Your task to perform on an android device: Open eBay Image 0: 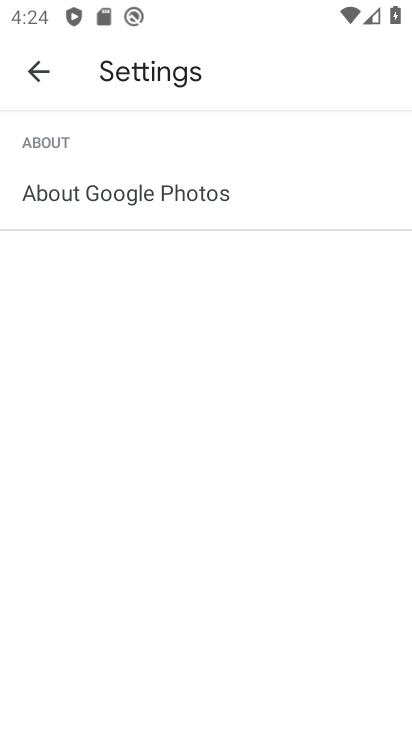
Step 0: click (26, 61)
Your task to perform on an android device: Open eBay Image 1: 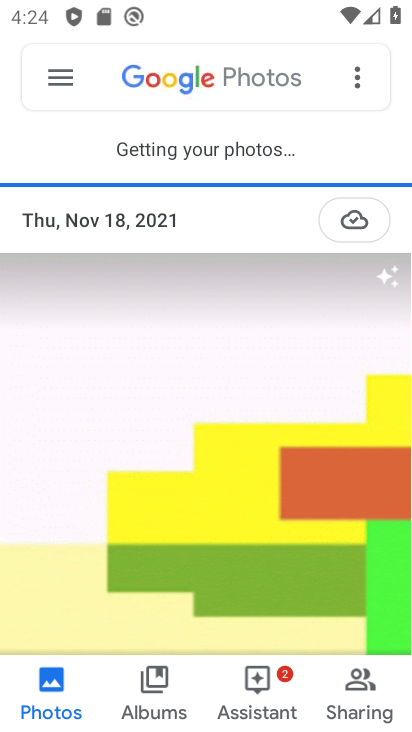
Step 1: click (37, 64)
Your task to perform on an android device: Open eBay Image 2: 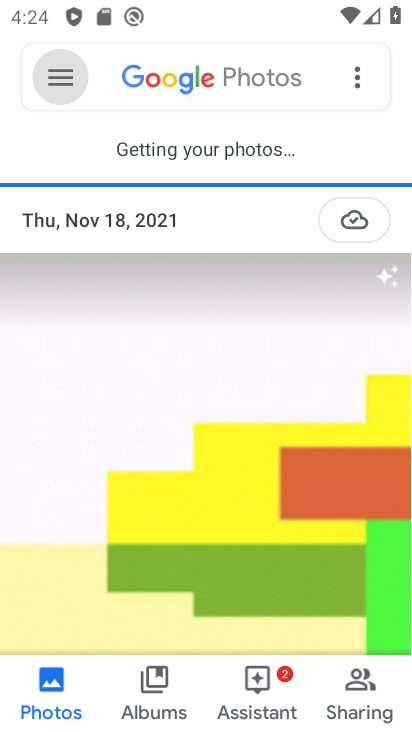
Step 2: click (56, 134)
Your task to perform on an android device: Open eBay Image 3: 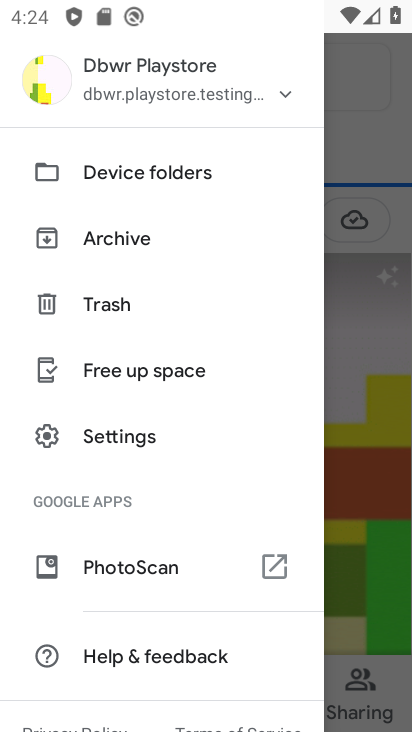
Step 3: click (38, 73)
Your task to perform on an android device: Open eBay Image 4: 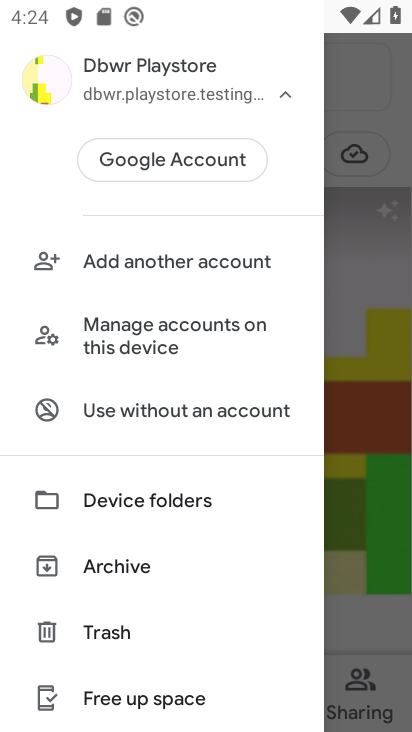
Step 4: drag from (182, 627) to (103, 84)
Your task to perform on an android device: Open eBay Image 5: 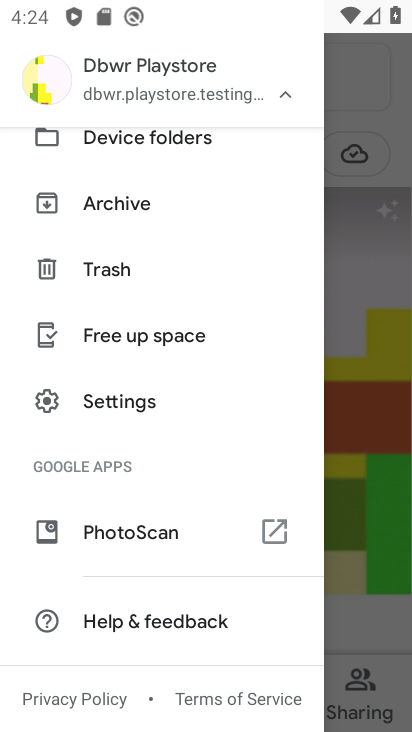
Step 5: drag from (167, 458) to (158, 6)
Your task to perform on an android device: Open eBay Image 6: 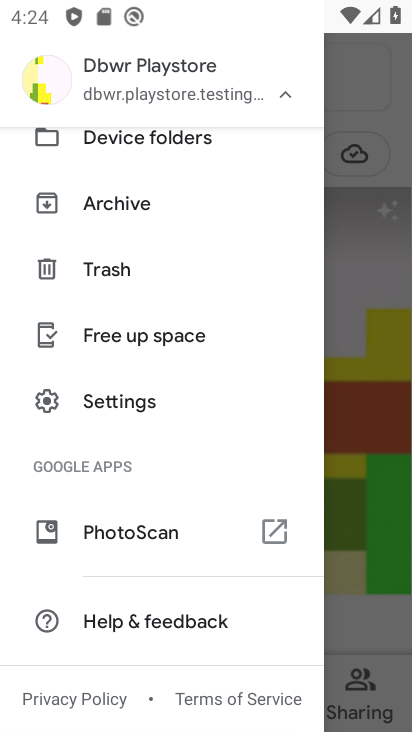
Step 6: drag from (152, 581) to (152, 45)
Your task to perform on an android device: Open eBay Image 7: 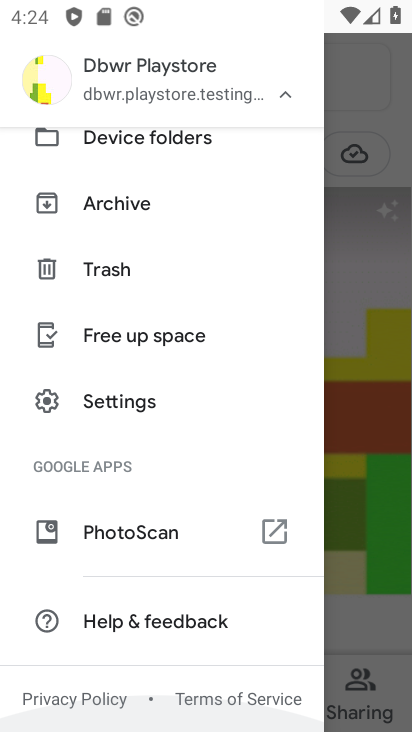
Step 7: drag from (219, 580) to (219, 179)
Your task to perform on an android device: Open eBay Image 8: 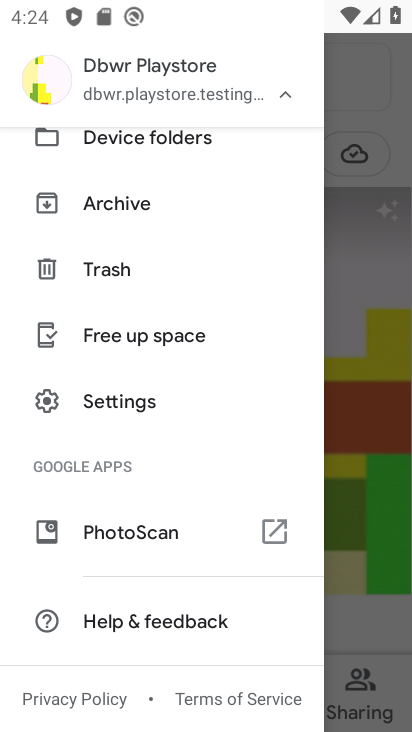
Step 8: press back button
Your task to perform on an android device: Open eBay Image 9: 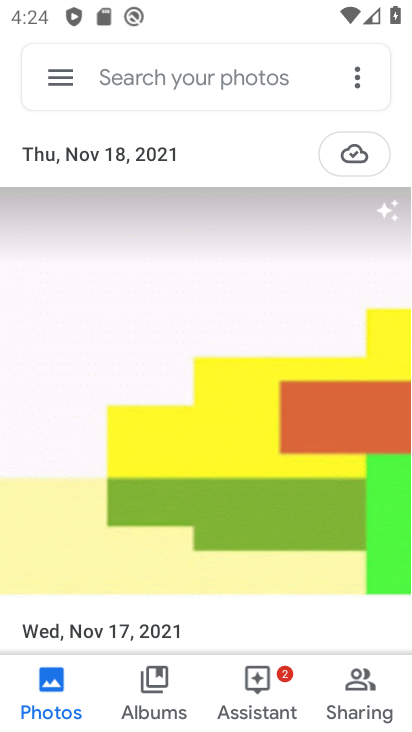
Step 9: press back button
Your task to perform on an android device: Open eBay Image 10: 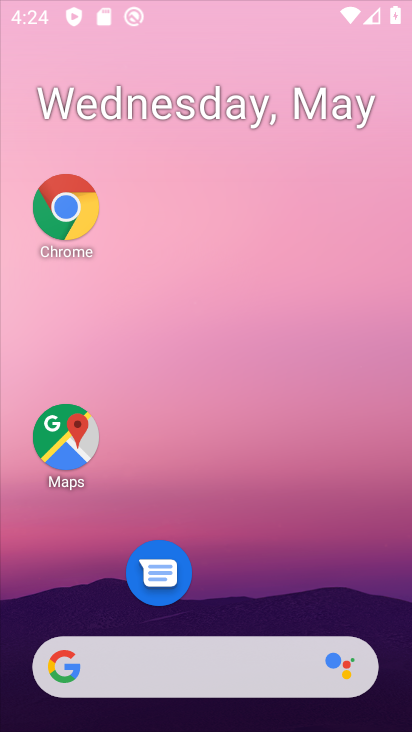
Step 10: press back button
Your task to perform on an android device: Open eBay Image 11: 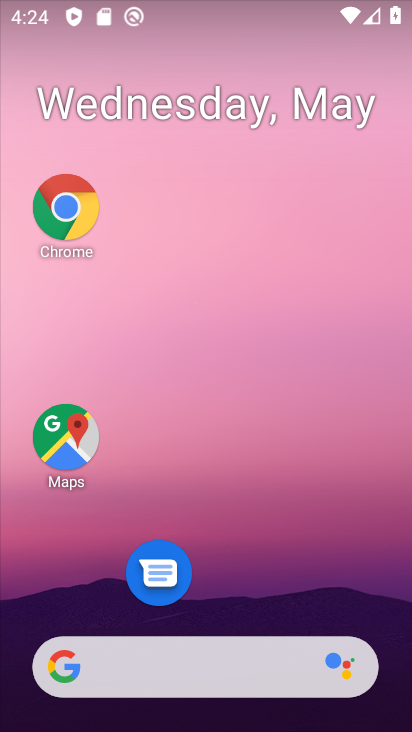
Step 11: drag from (273, 637) to (171, 1)
Your task to perform on an android device: Open eBay Image 12: 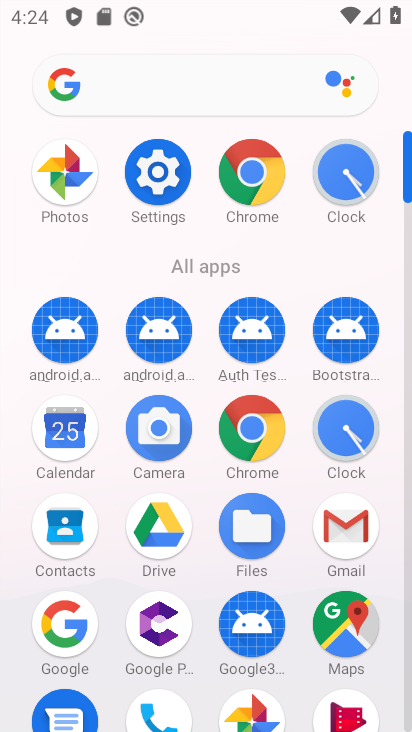
Step 12: drag from (292, 636) to (171, 70)
Your task to perform on an android device: Open eBay Image 13: 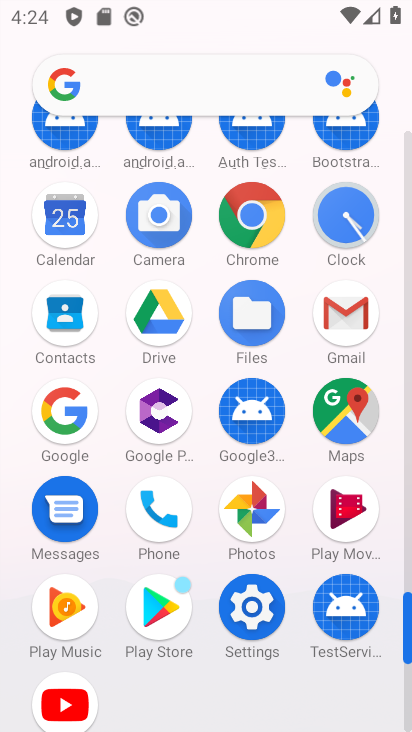
Step 13: click (257, 220)
Your task to perform on an android device: Open eBay Image 14: 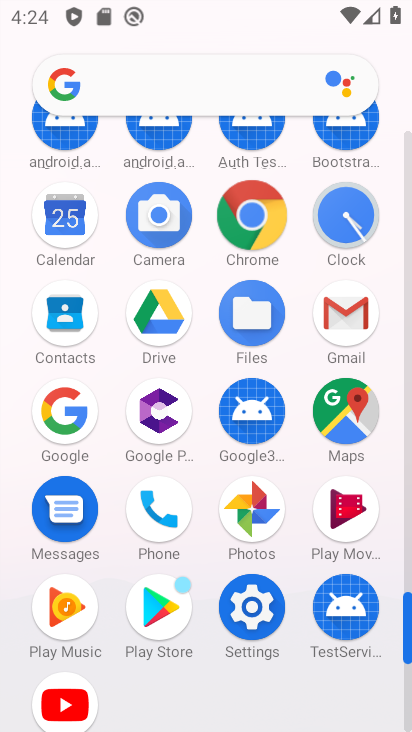
Step 14: click (258, 221)
Your task to perform on an android device: Open eBay Image 15: 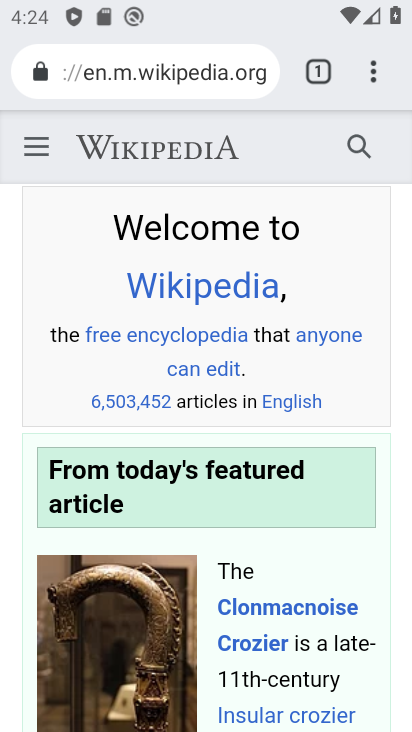
Step 15: drag from (374, 69) to (78, 147)
Your task to perform on an android device: Open eBay Image 16: 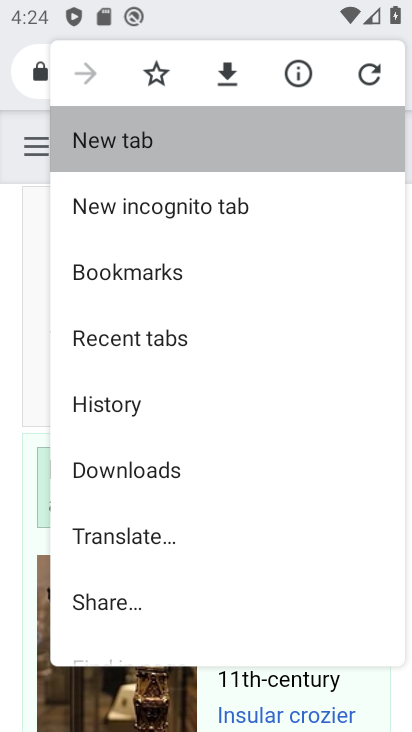
Step 16: click (78, 147)
Your task to perform on an android device: Open eBay Image 17: 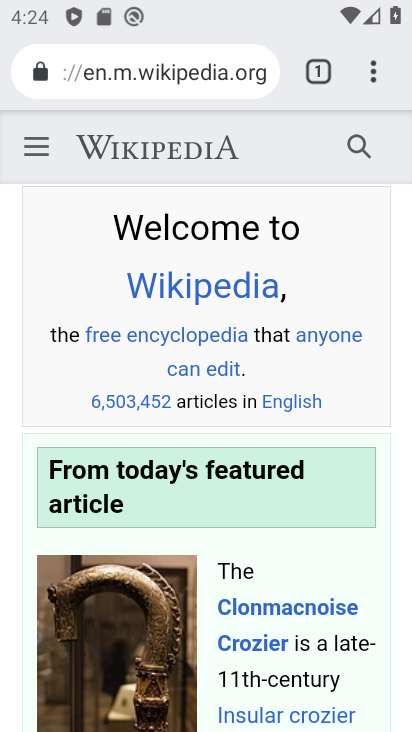
Step 17: click (78, 147)
Your task to perform on an android device: Open eBay Image 18: 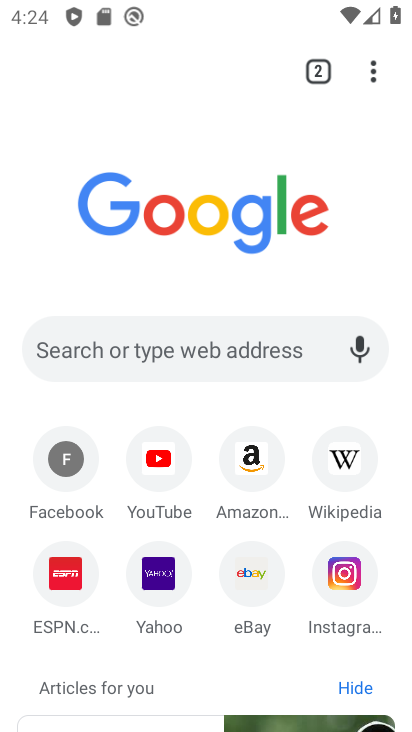
Step 18: click (248, 585)
Your task to perform on an android device: Open eBay Image 19: 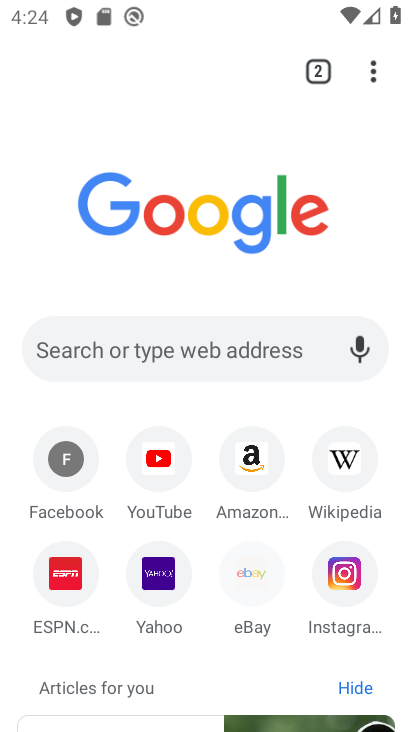
Step 19: click (248, 584)
Your task to perform on an android device: Open eBay Image 20: 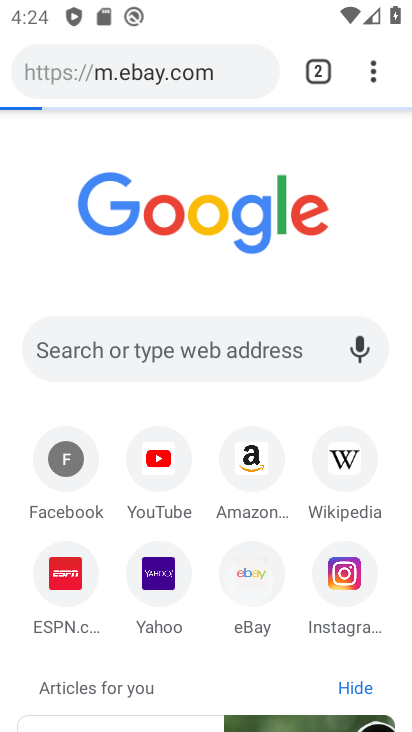
Step 20: click (248, 583)
Your task to perform on an android device: Open eBay Image 21: 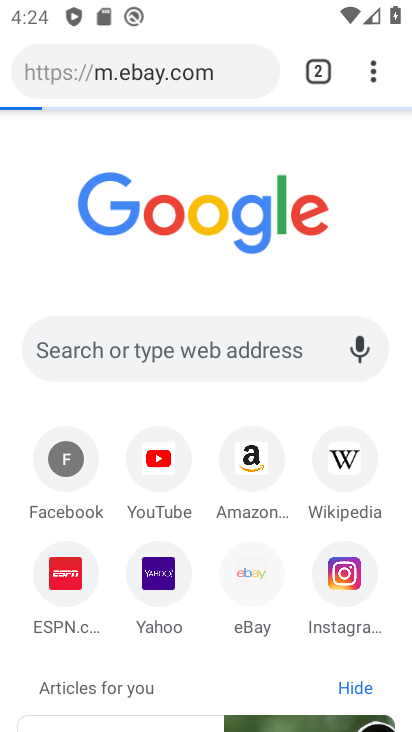
Step 21: click (248, 582)
Your task to perform on an android device: Open eBay Image 22: 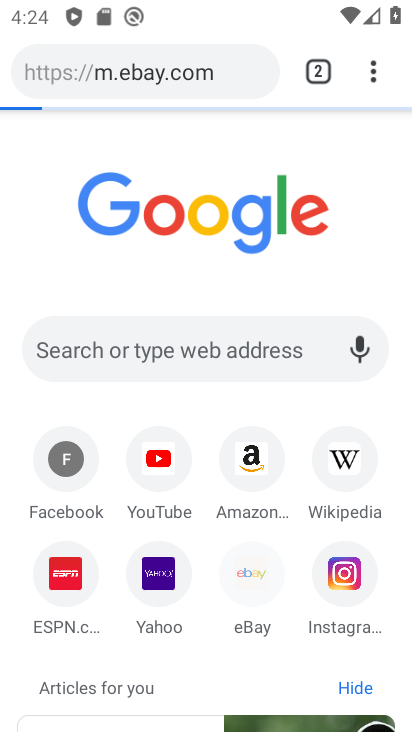
Step 22: click (221, 560)
Your task to perform on an android device: Open eBay Image 23: 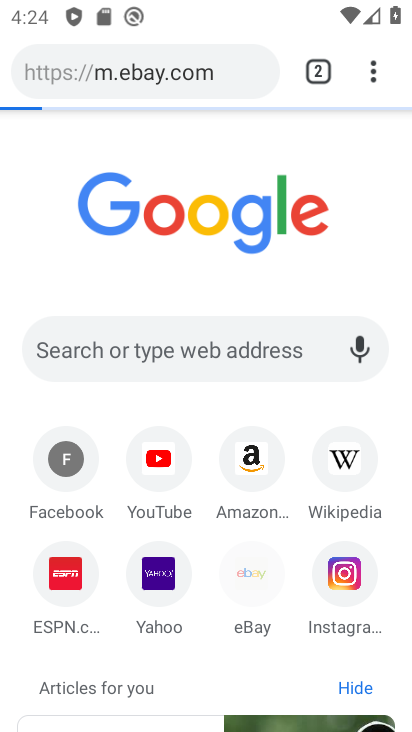
Step 23: click (221, 560)
Your task to perform on an android device: Open eBay Image 24: 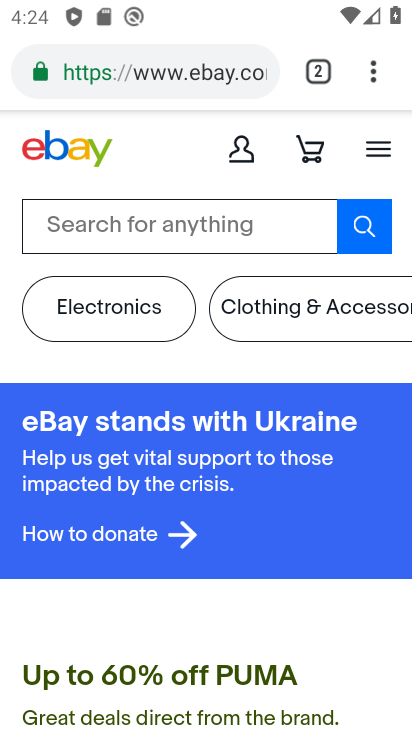
Step 24: task complete